Your task to perform on an android device: Look up the best rated pressure washer on Home Depot. Image 0: 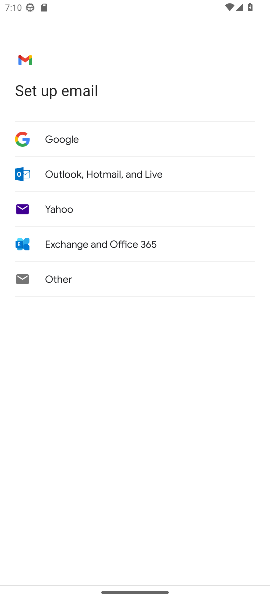
Step 0: press back button
Your task to perform on an android device: Look up the best rated pressure washer on Home Depot. Image 1: 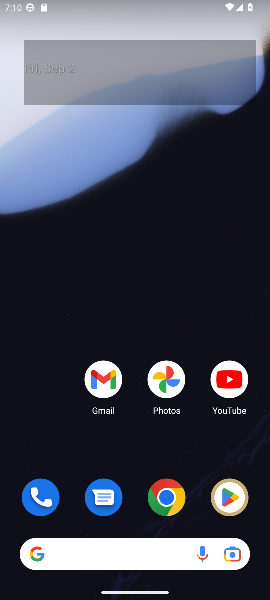
Step 1: click (129, 552)
Your task to perform on an android device: Look up the best rated pressure washer on Home Depot. Image 2: 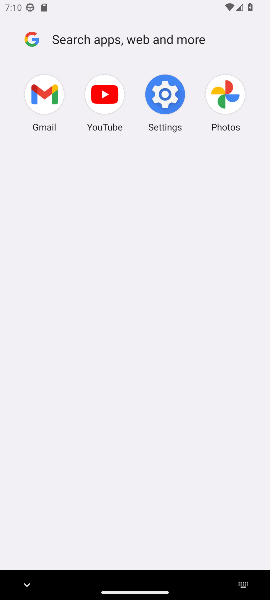
Step 2: type "best rated pressure washer on Home Depot."
Your task to perform on an android device: Look up the best rated pressure washer on Home Depot. Image 3: 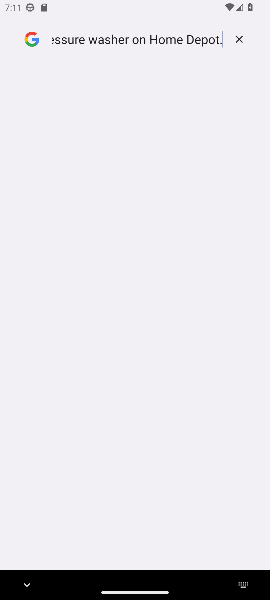
Step 3: click (241, 39)
Your task to perform on an android device: Look up the best rated pressure washer on Home Depot. Image 4: 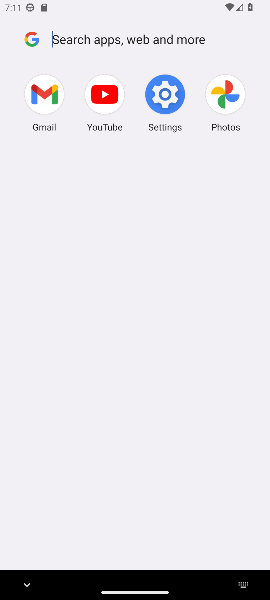
Step 4: type "best rated pressure washer on Home Depot."
Your task to perform on an android device: Look up the best rated pressure washer on Home Depot. Image 5: 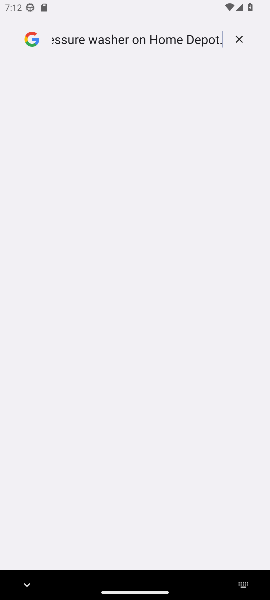
Step 5: task complete